Your task to perform on an android device: Show me the alarms in the clock app Image 0: 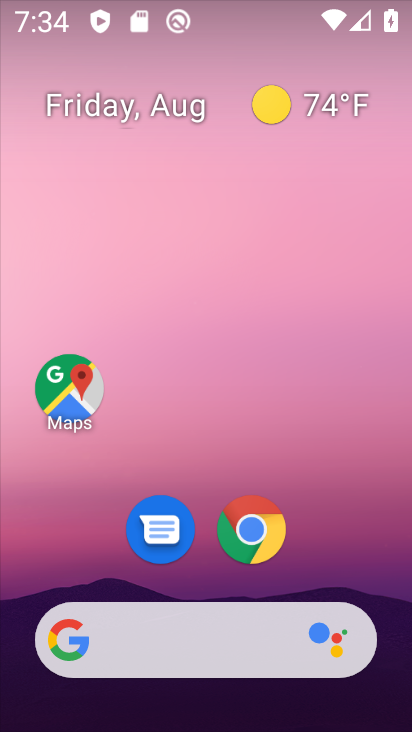
Step 0: drag from (164, 620) to (143, 147)
Your task to perform on an android device: Show me the alarms in the clock app Image 1: 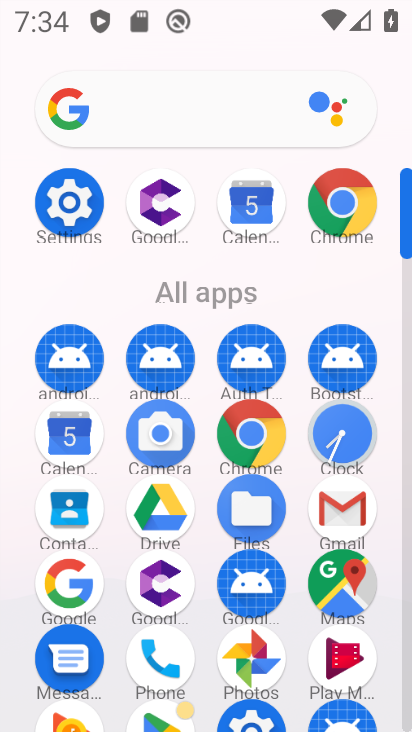
Step 1: click (344, 434)
Your task to perform on an android device: Show me the alarms in the clock app Image 2: 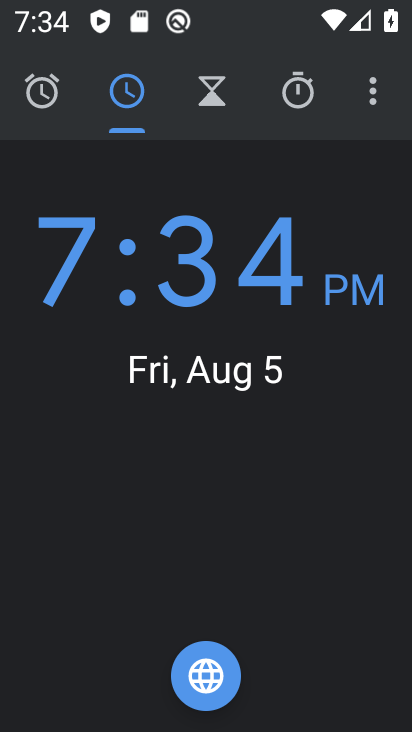
Step 2: click (45, 88)
Your task to perform on an android device: Show me the alarms in the clock app Image 3: 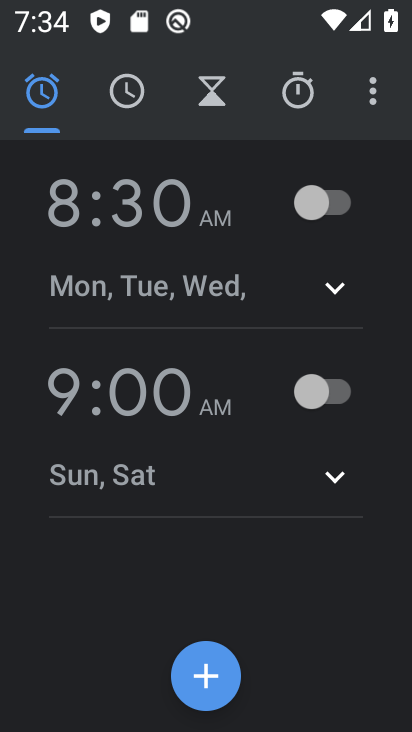
Step 3: click (206, 676)
Your task to perform on an android device: Show me the alarms in the clock app Image 4: 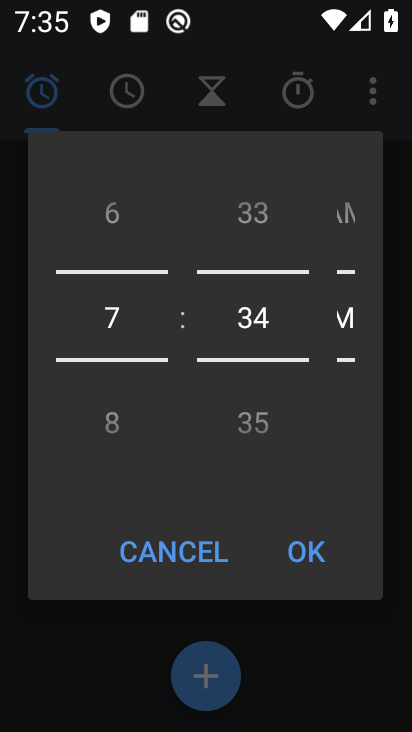
Step 4: drag from (118, 227) to (140, 431)
Your task to perform on an android device: Show me the alarms in the clock app Image 5: 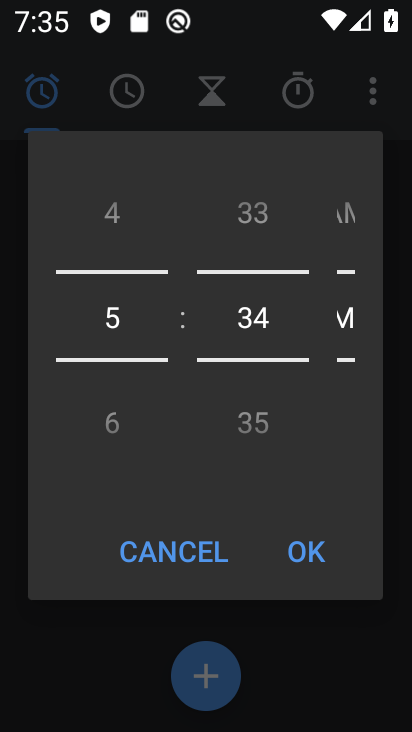
Step 5: drag from (273, 215) to (285, 430)
Your task to perform on an android device: Show me the alarms in the clock app Image 6: 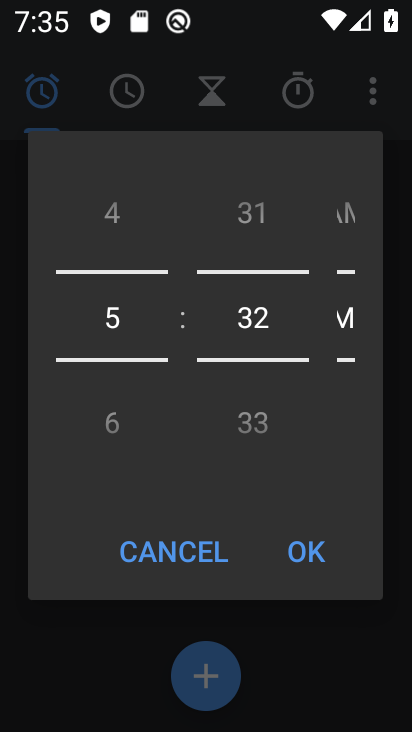
Step 6: drag from (265, 216) to (264, 476)
Your task to perform on an android device: Show me the alarms in the clock app Image 7: 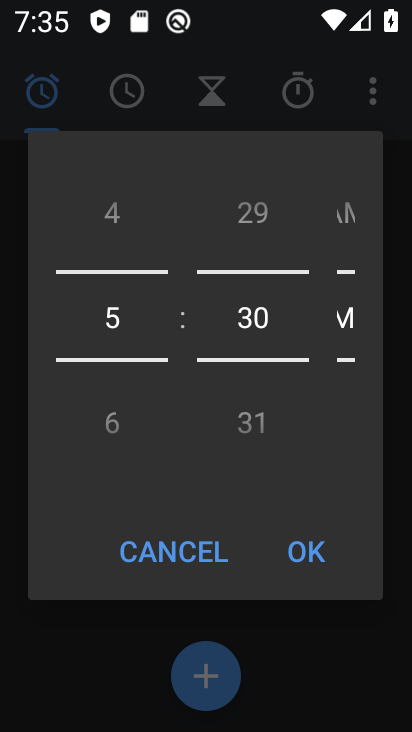
Step 7: drag from (251, 224) to (280, 465)
Your task to perform on an android device: Show me the alarms in the clock app Image 8: 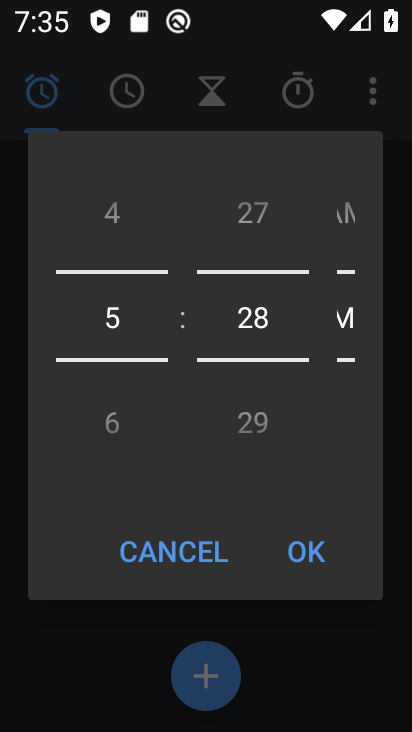
Step 8: drag from (348, 222) to (354, 416)
Your task to perform on an android device: Show me the alarms in the clock app Image 9: 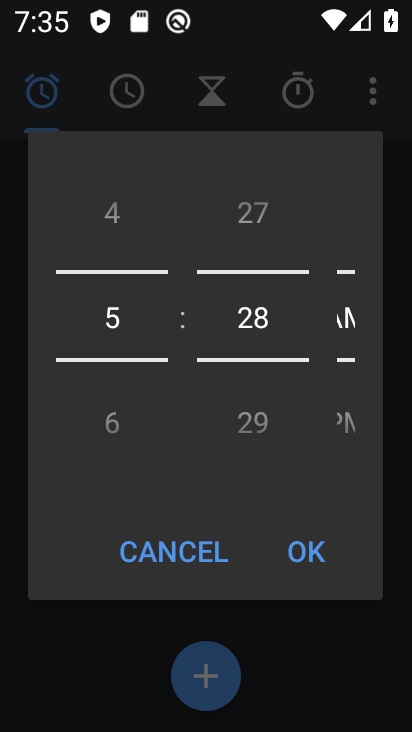
Step 9: click (313, 557)
Your task to perform on an android device: Show me the alarms in the clock app Image 10: 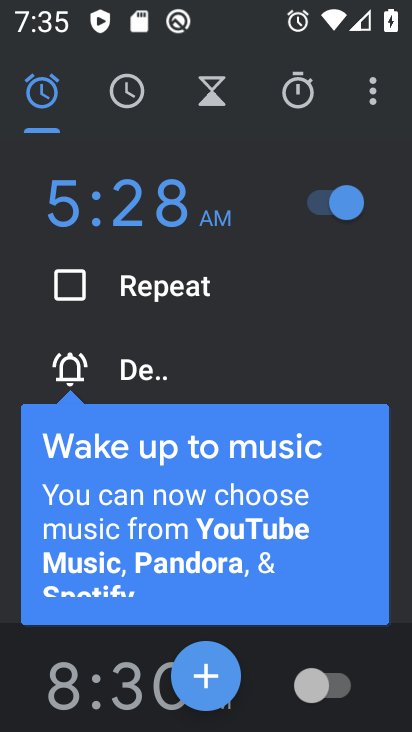
Step 10: task complete